Your task to perform on an android device: make emails show in primary in the gmail app Image 0: 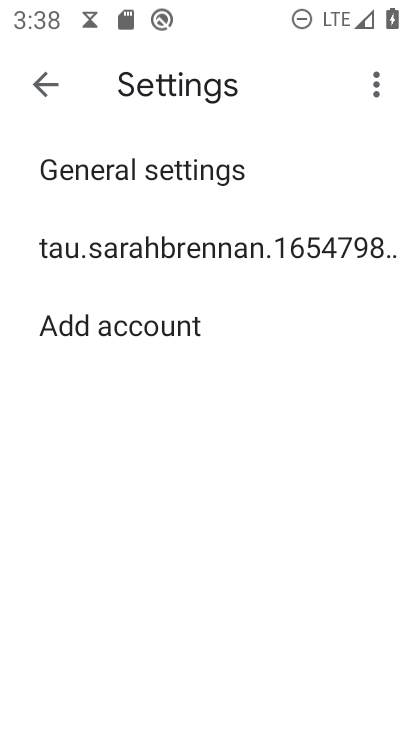
Step 0: press home button
Your task to perform on an android device: make emails show in primary in the gmail app Image 1: 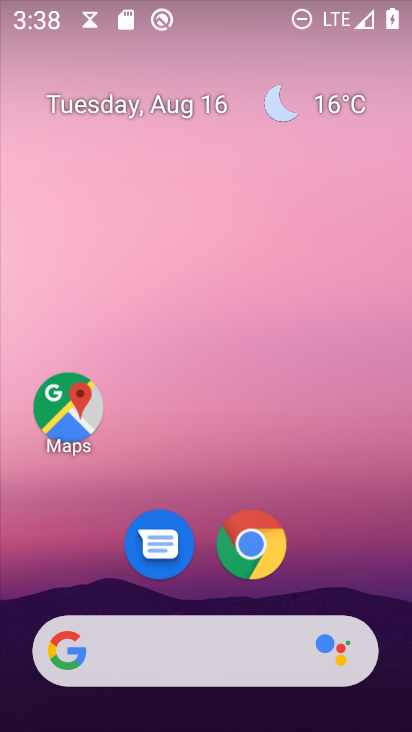
Step 1: drag from (217, 668) to (179, 165)
Your task to perform on an android device: make emails show in primary in the gmail app Image 2: 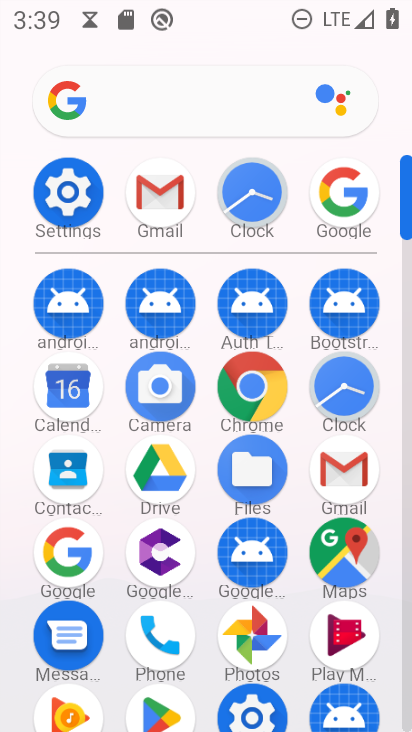
Step 2: click (161, 192)
Your task to perform on an android device: make emails show in primary in the gmail app Image 3: 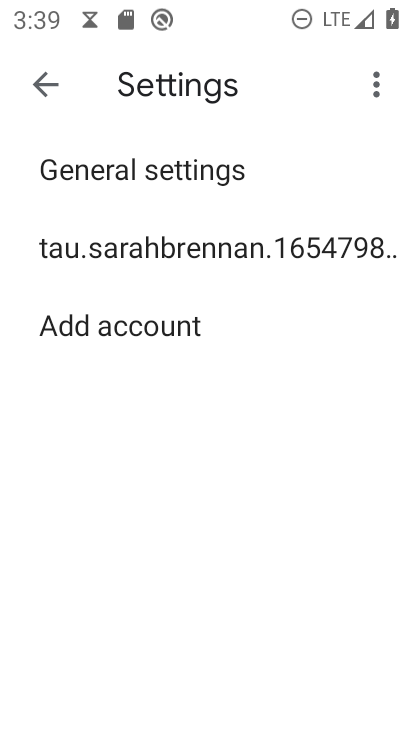
Step 3: click (155, 249)
Your task to perform on an android device: make emails show in primary in the gmail app Image 4: 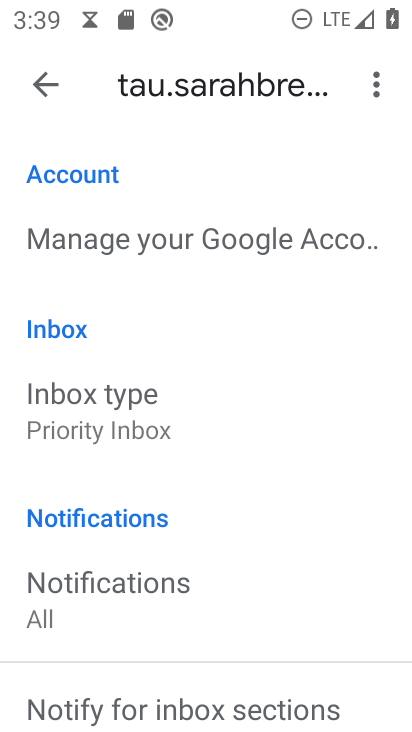
Step 4: click (142, 404)
Your task to perform on an android device: make emails show in primary in the gmail app Image 5: 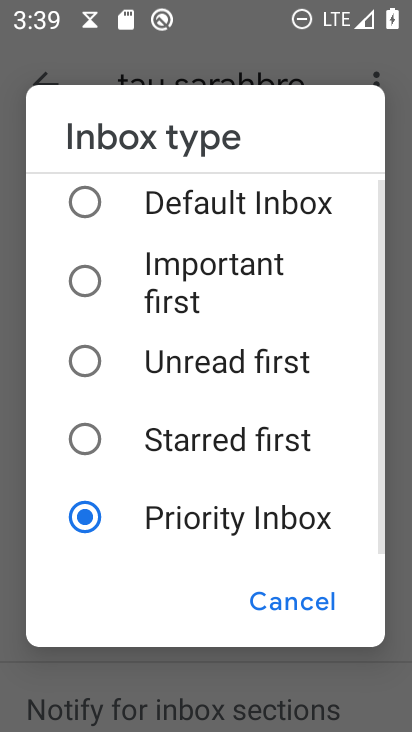
Step 5: click (89, 202)
Your task to perform on an android device: make emails show in primary in the gmail app Image 6: 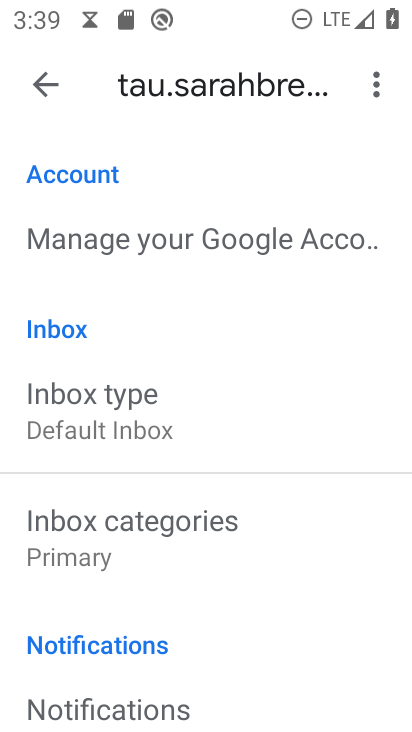
Step 6: task complete